Your task to perform on an android device: turn off notifications settings in the gmail app Image 0: 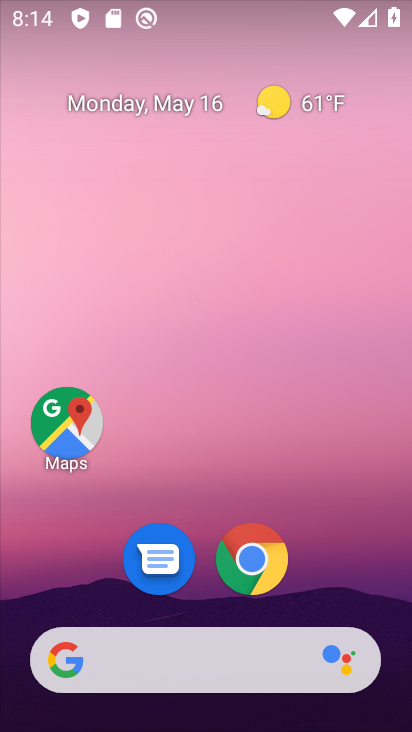
Step 0: drag from (343, 519) to (406, 174)
Your task to perform on an android device: turn off notifications settings in the gmail app Image 1: 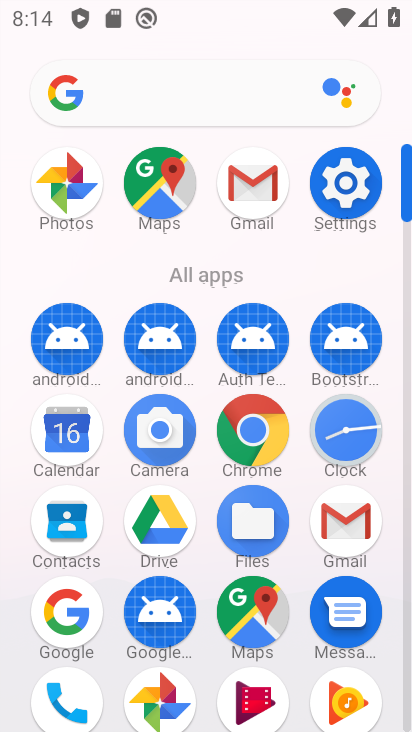
Step 1: click (336, 523)
Your task to perform on an android device: turn off notifications settings in the gmail app Image 2: 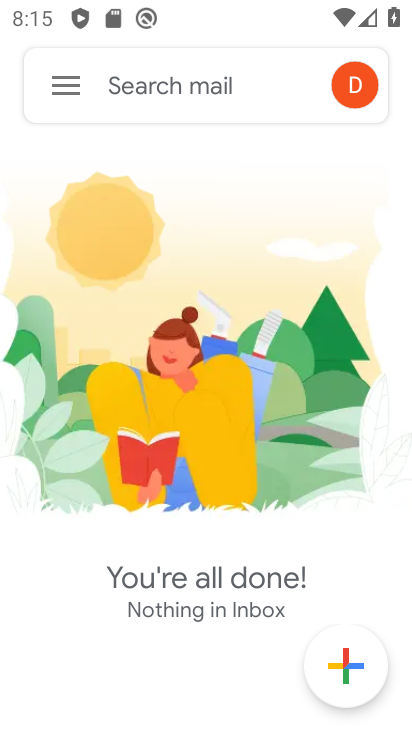
Step 2: click (56, 87)
Your task to perform on an android device: turn off notifications settings in the gmail app Image 3: 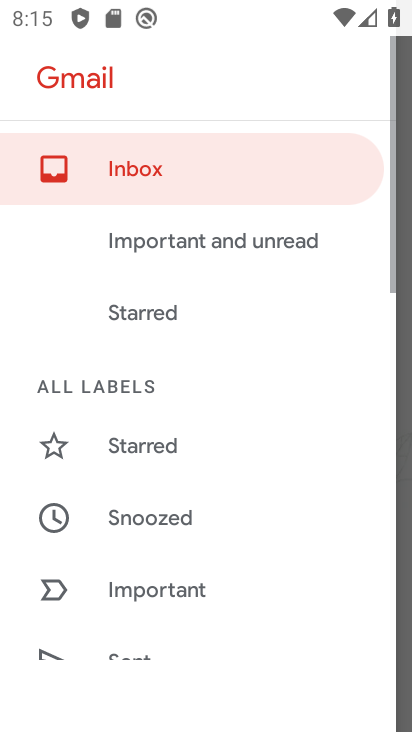
Step 3: drag from (188, 649) to (282, 314)
Your task to perform on an android device: turn off notifications settings in the gmail app Image 4: 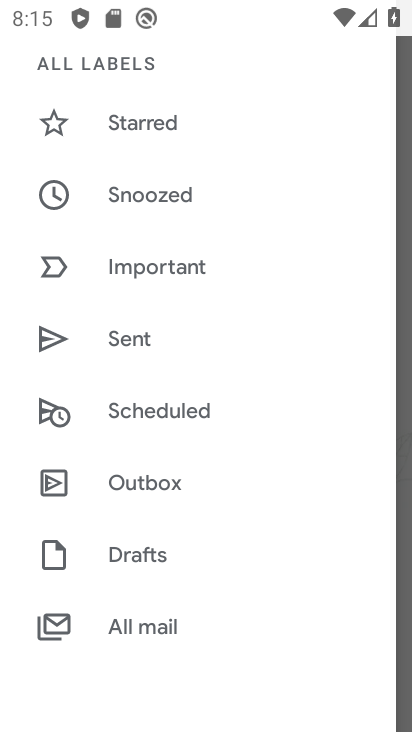
Step 4: drag from (205, 601) to (256, 179)
Your task to perform on an android device: turn off notifications settings in the gmail app Image 5: 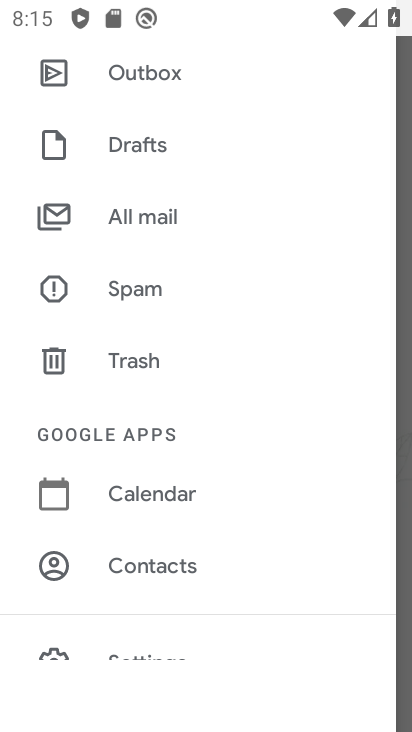
Step 5: drag from (193, 582) to (251, 204)
Your task to perform on an android device: turn off notifications settings in the gmail app Image 6: 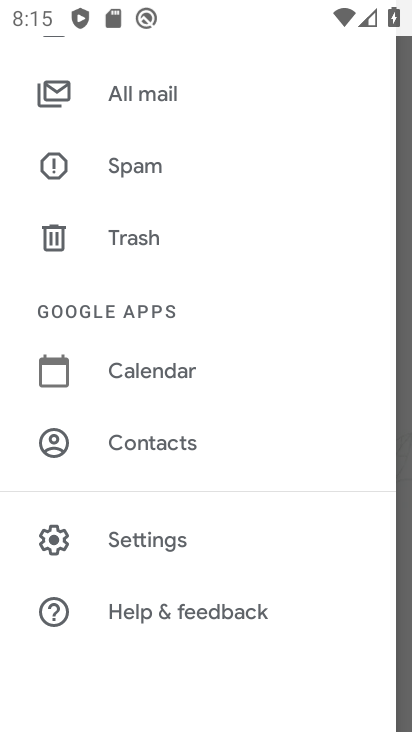
Step 6: click (203, 544)
Your task to perform on an android device: turn off notifications settings in the gmail app Image 7: 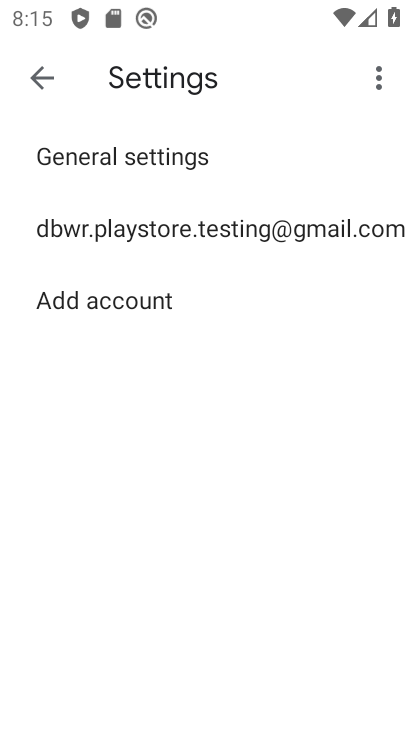
Step 7: click (270, 250)
Your task to perform on an android device: turn off notifications settings in the gmail app Image 8: 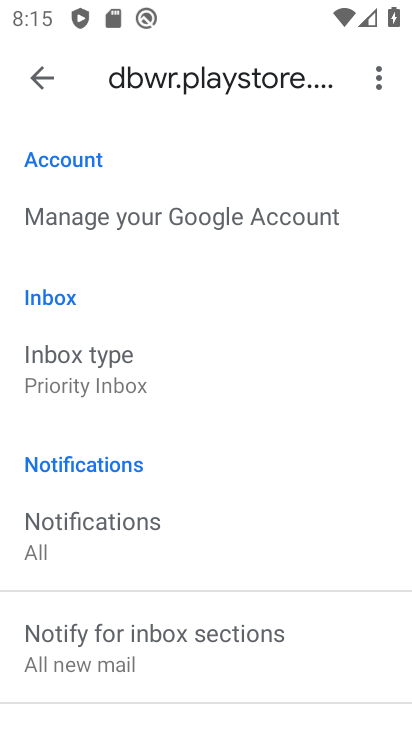
Step 8: click (216, 537)
Your task to perform on an android device: turn off notifications settings in the gmail app Image 9: 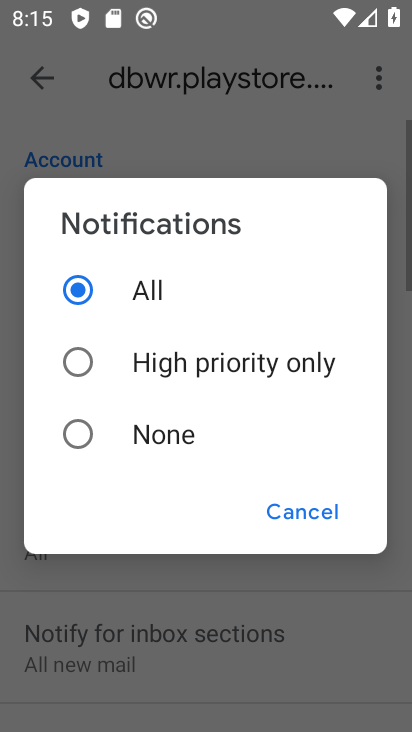
Step 9: click (181, 439)
Your task to perform on an android device: turn off notifications settings in the gmail app Image 10: 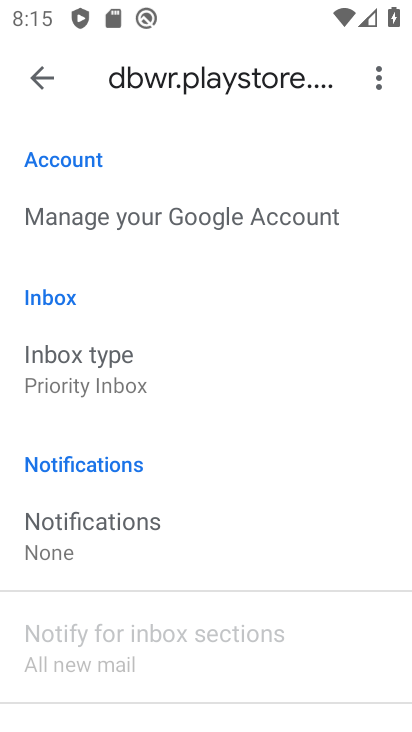
Step 10: task complete